Your task to perform on an android device: Open the map Image 0: 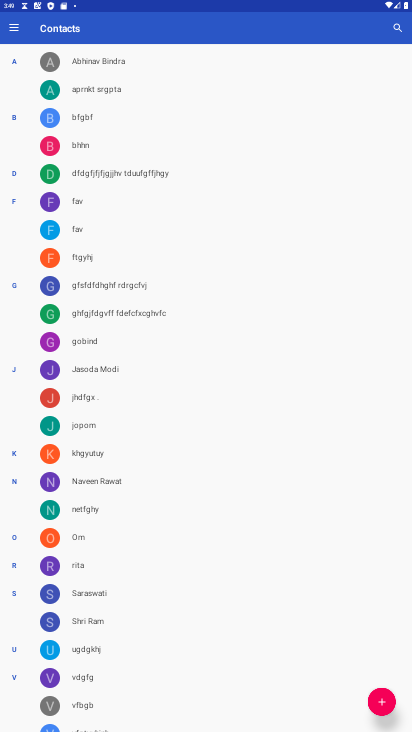
Step 0: press home button
Your task to perform on an android device: Open the map Image 1: 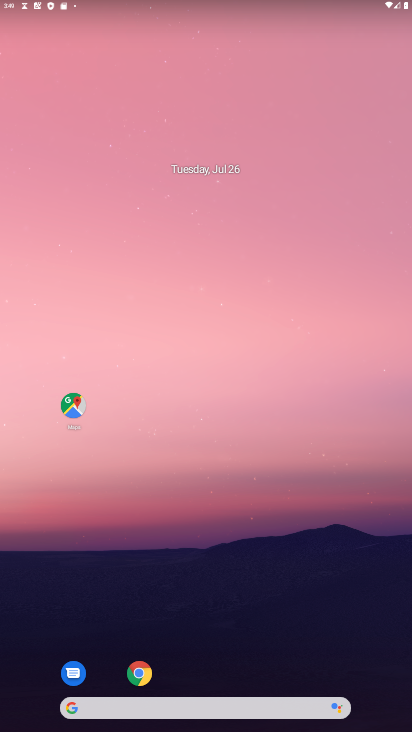
Step 1: drag from (166, 703) to (183, 140)
Your task to perform on an android device: Open the map Image 2: 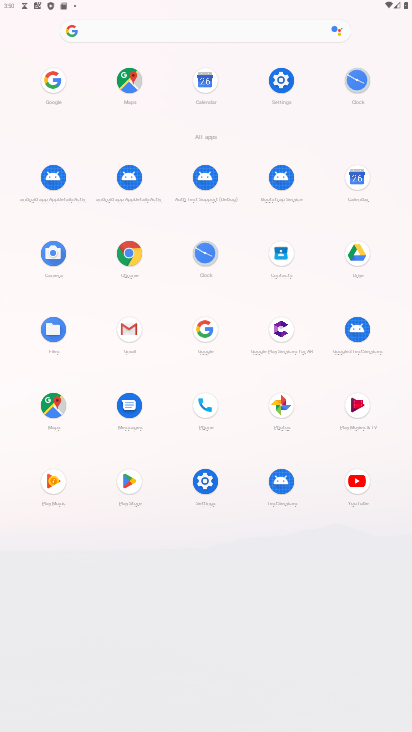
Step 2: click (53, 407)
Your task to perform on an android device: Open the map Image 3: 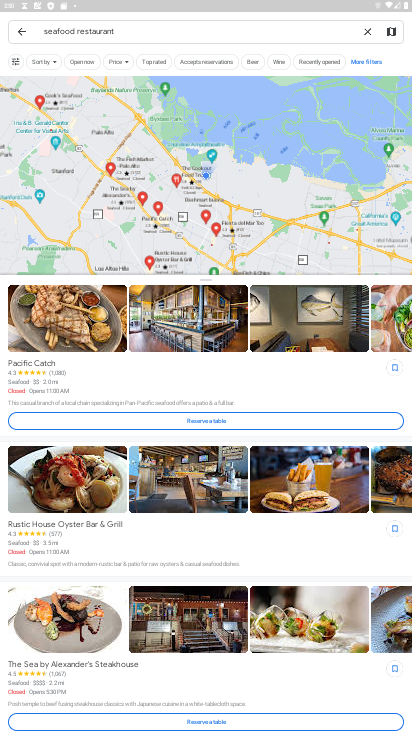
Step 3: task complete